Your task to perform on an android device: What's the weather going to be this weekend? Image 0: 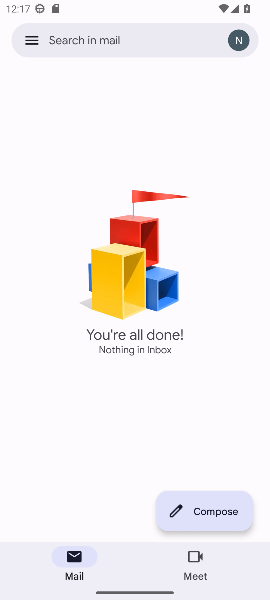
Step 0: press home button
Your task to perform on an android device: What's the weather going to be this weekend? Image 1: 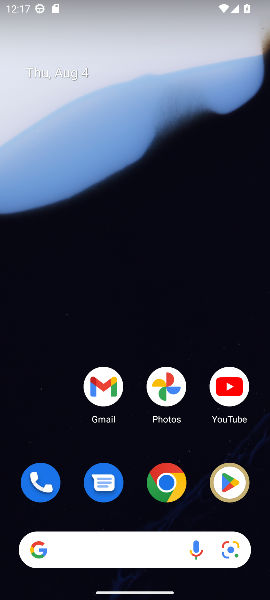
Step 1: drag from (139, 453) to (137, 142)
Your task to perform on an android device: What's the weather going to be this weekend? Image 2: 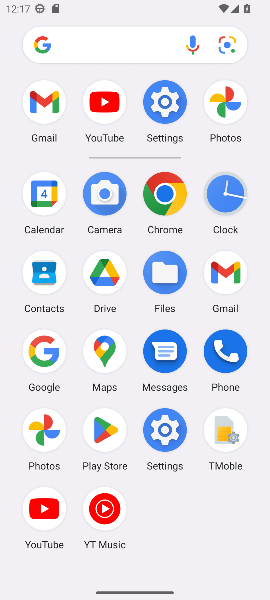
Step 2: click (57, 358)
Your task to perform on an android device: What's the weather going to be this weekend? Image 3: 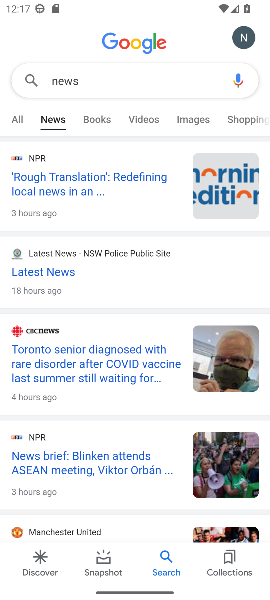
Step 3: click (152, 74)
Your task to perform on an android device: What's the weather going to be this weekend? Image 4: 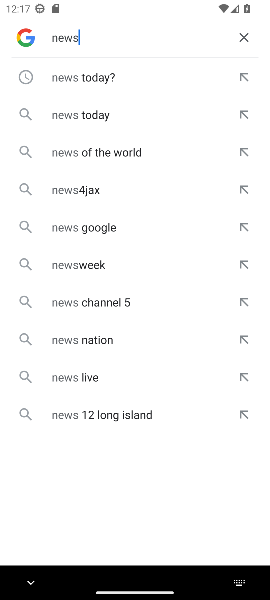
Step 4: click (243, 42)
Your task to perform on an android device: What's the weather going to be this weekend? Image 5: 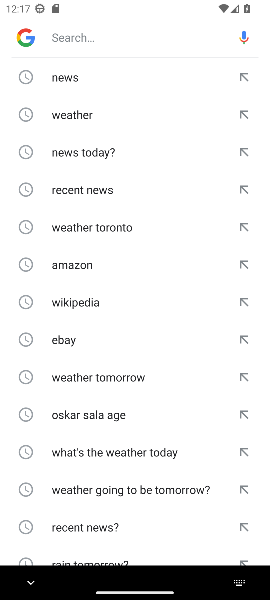
Step 5: click (101, 115)
Your task to perform on an android device: What's the weather going to be this weekend? Image 6: 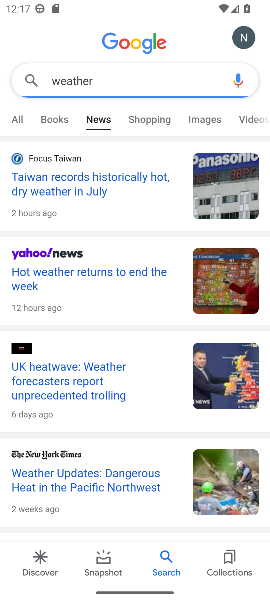
Step 6: click (25, 121)
Your task to perform on an android device: What's the weather going to be this weekend? Image 7: 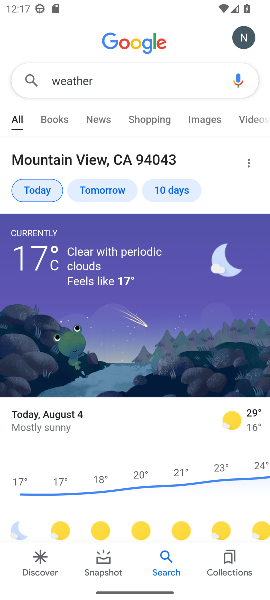
Step 7: click (162, 187)
Your task to perform on an android device: What's the weather going to be this weekend? Image 8: 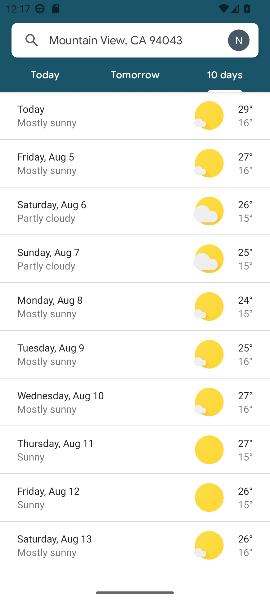
Step 8: task complete